Your task to perform on an android device: move an email to a new category in the gmail app Image 0: 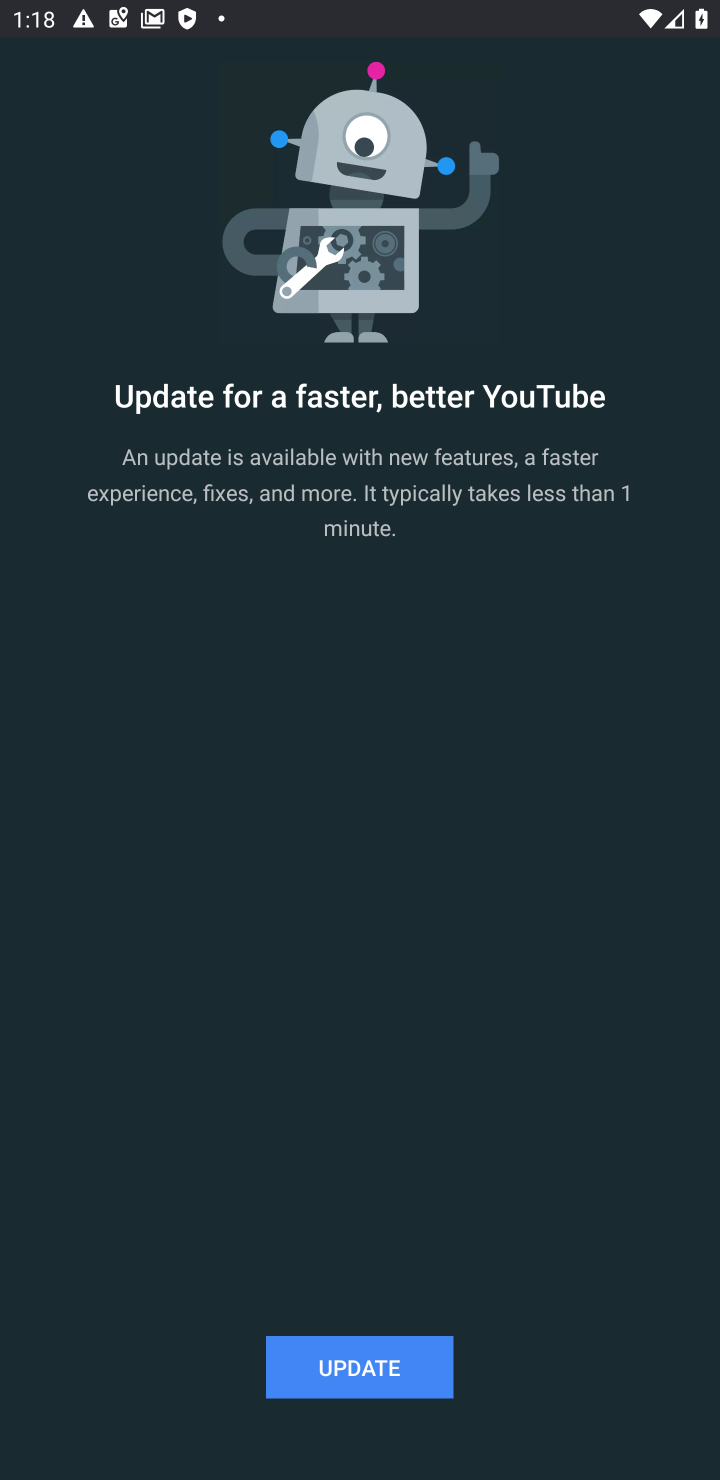
Step 0: press home button
Your task to perform on an android device: move an email to a new category in the gmail app Image 1: 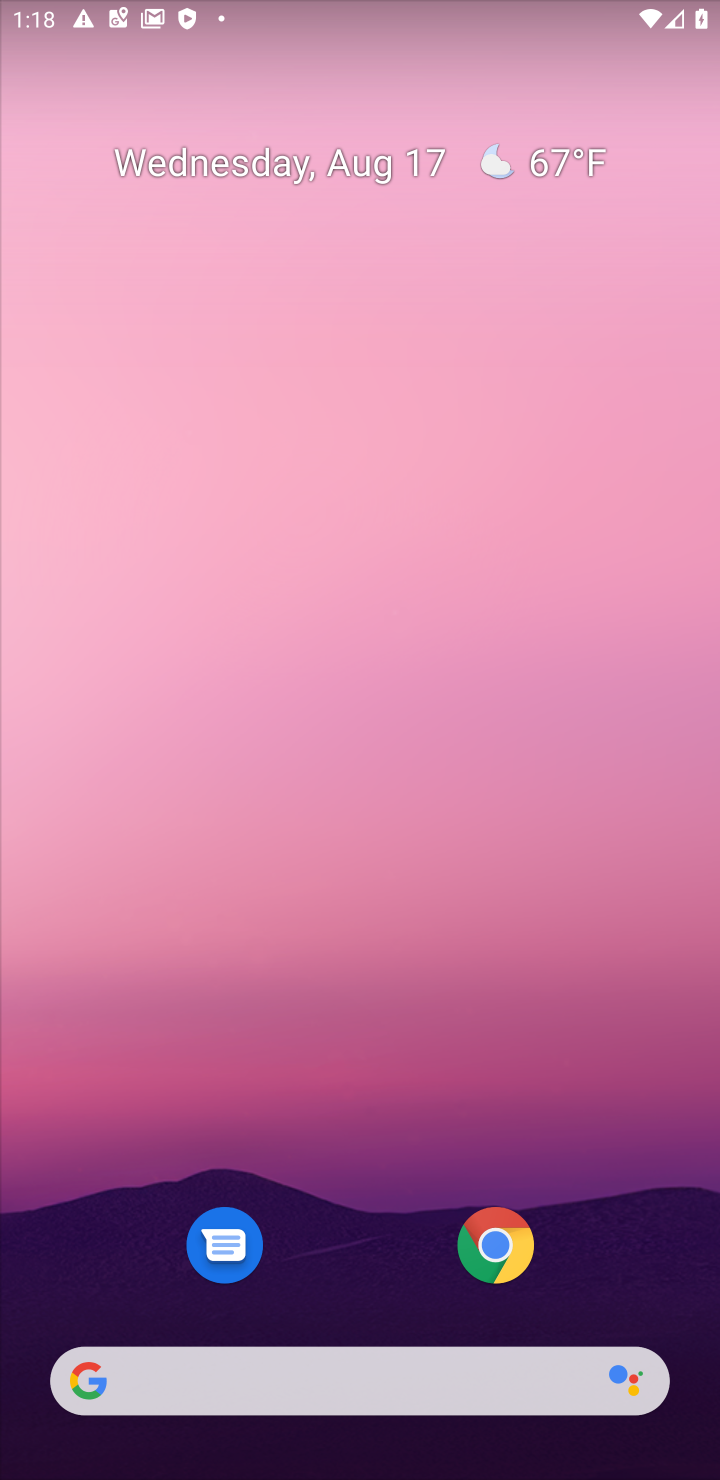
Step 1: drag from (365, 1164) to (365, 115)
Your task to perform on an android device: move an email to a new category in the gmail app Image 2: 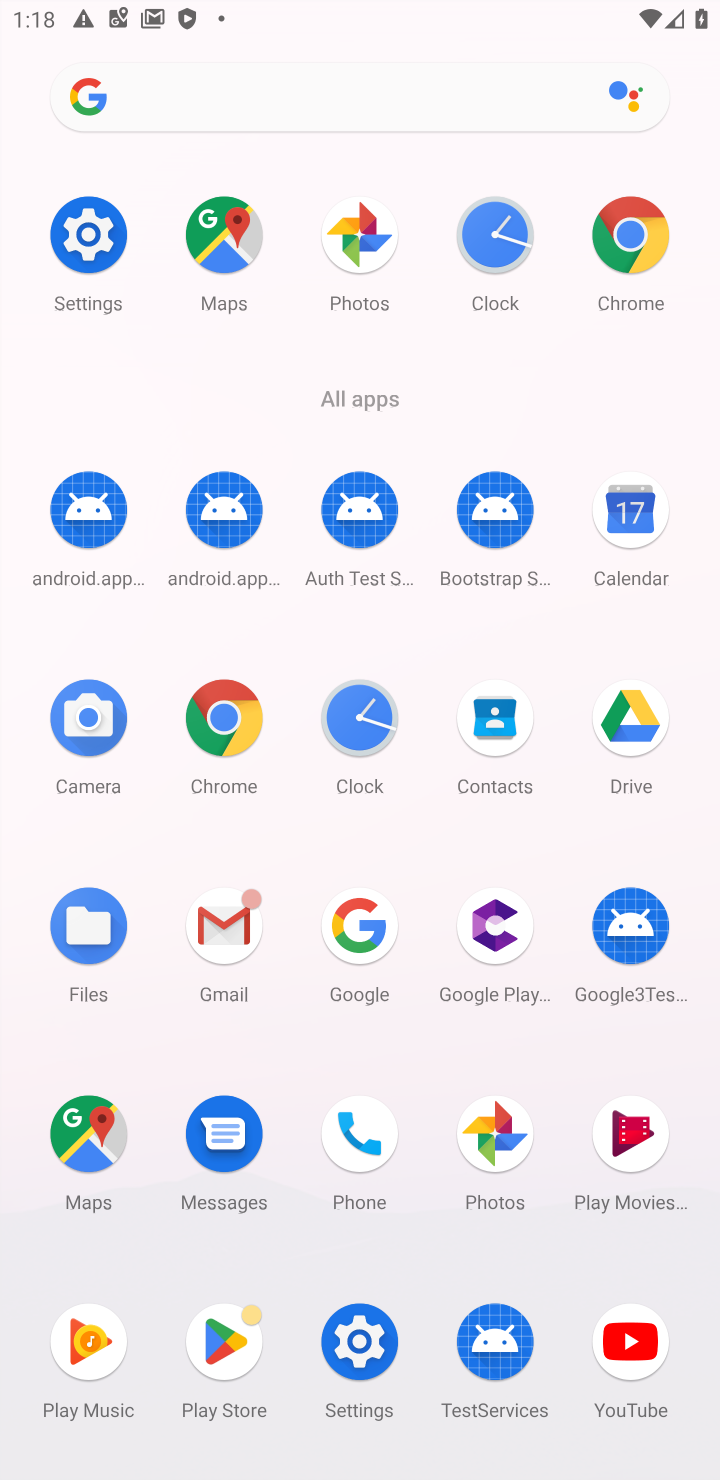
Step 2: click (233, 913)
Your task to perform on an android device: move an email to a new category in the gmail app Image 3: 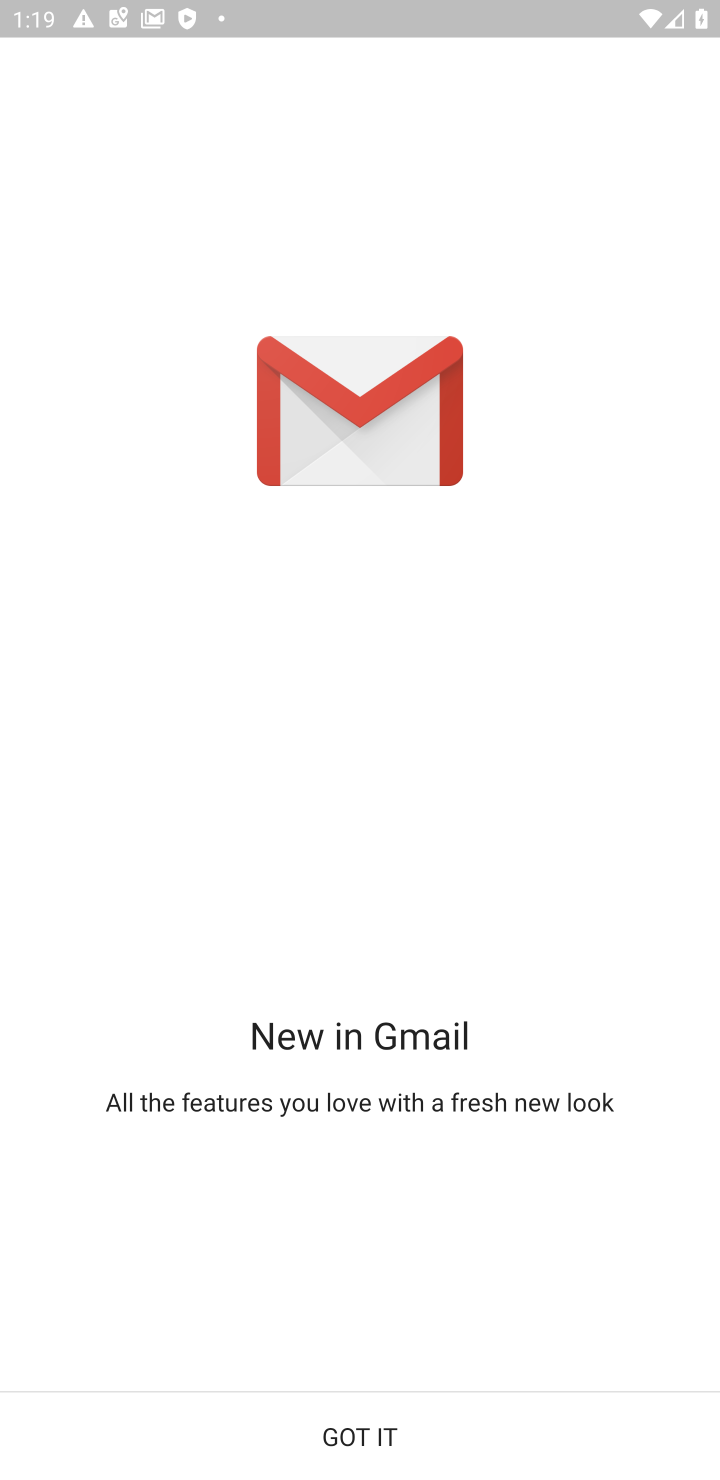
Step 3: click (348, 1418)
Your task to perform on an android device: move an email to a new category in the gmail app Image 4: 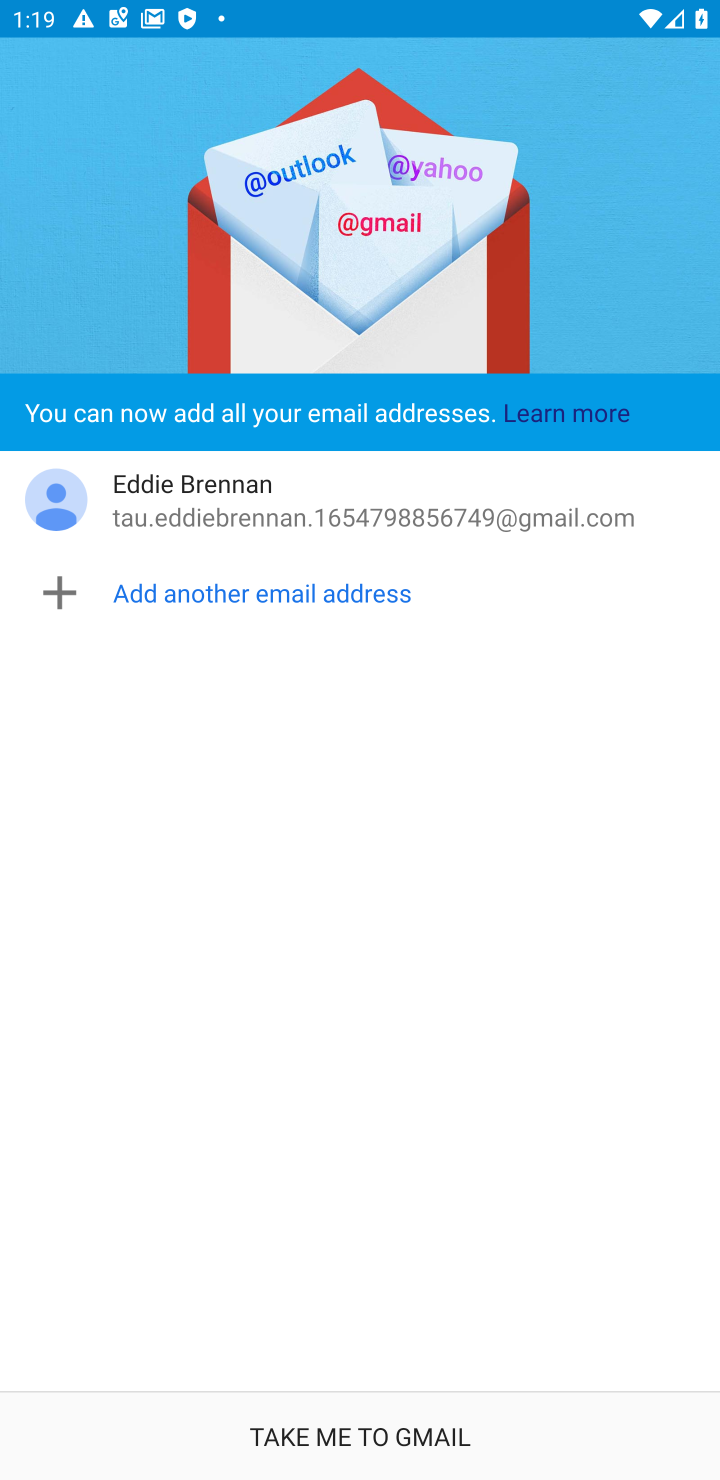
Step 4: click (393, 1426)
Your task to perform on an android device: move an email to a new category in the gmail app Image 5: 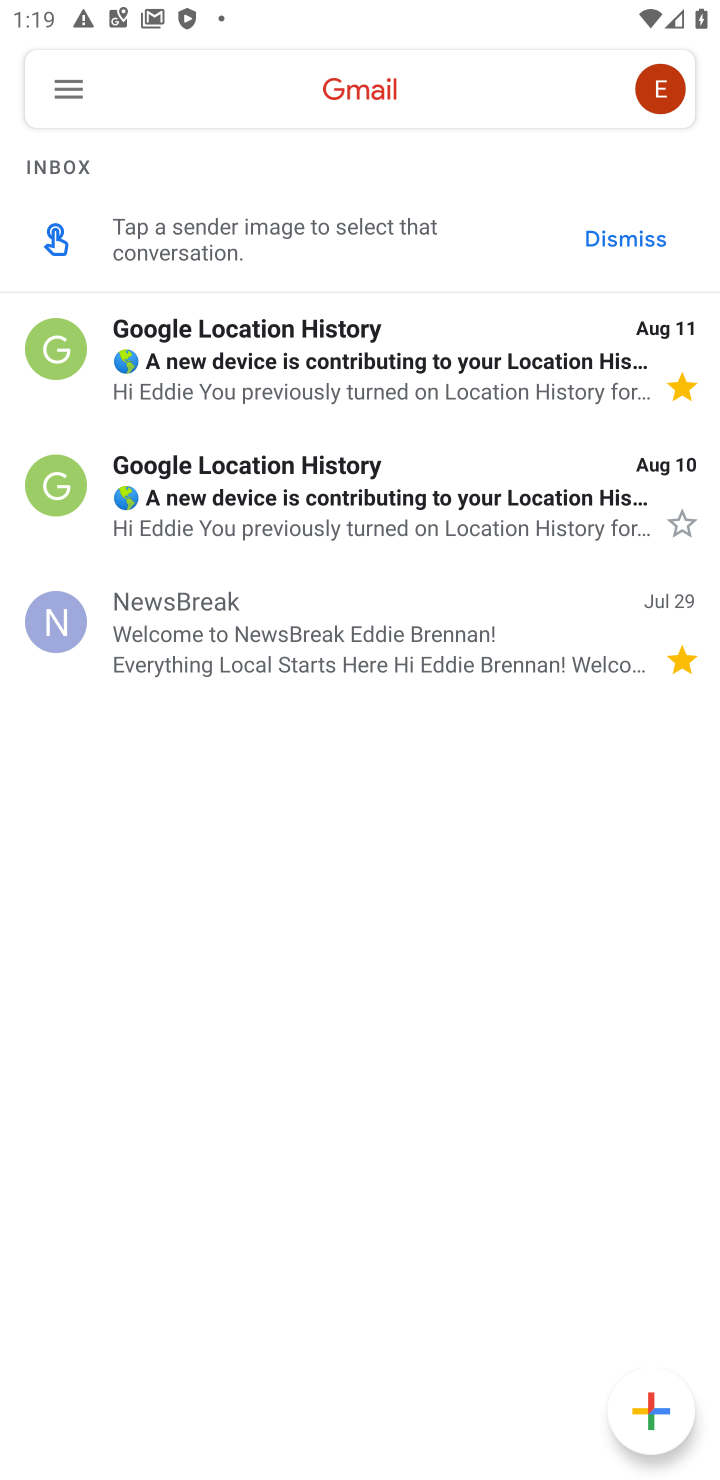
Step 5: click (336, 386)
Your task to perform on an android device: move an email to a new category in the gmail app Image 6: 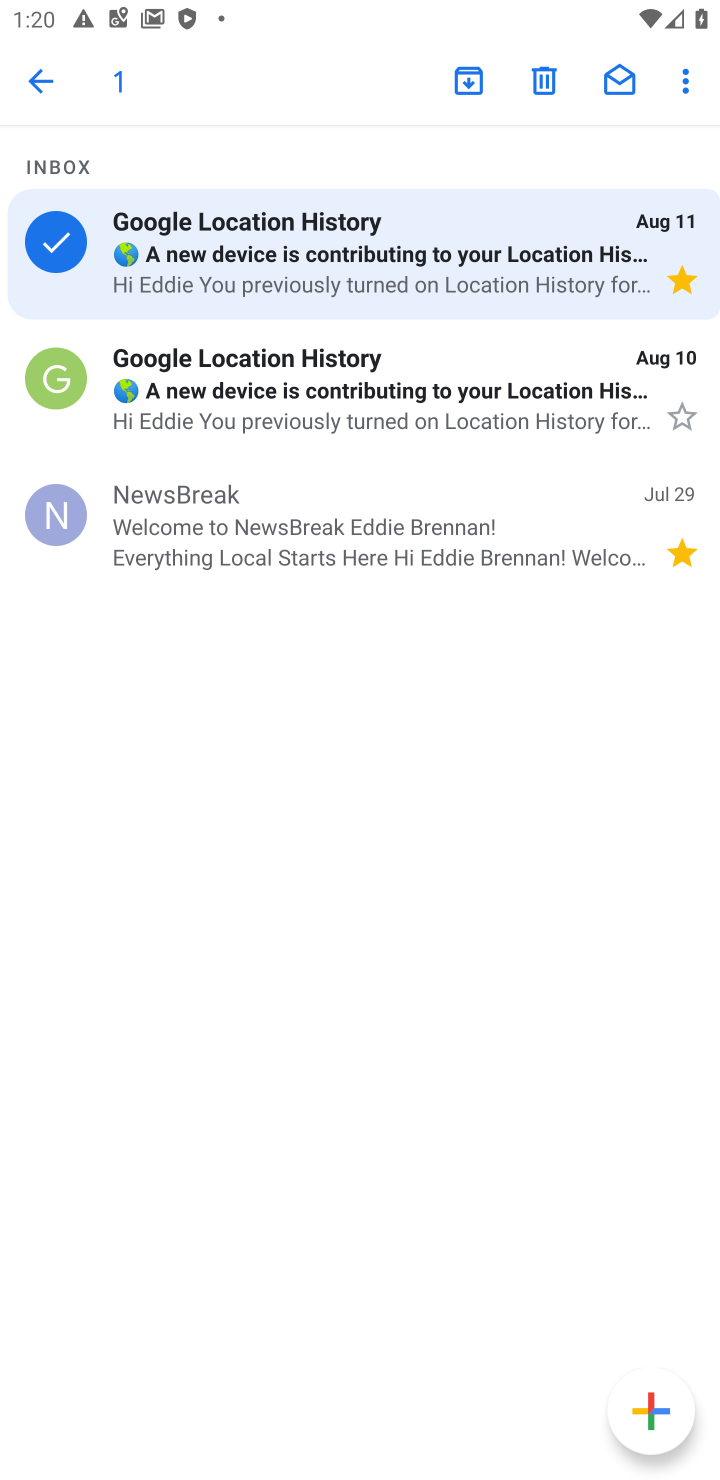
Step 6: click (682, 88)
Your task to perform on an android device: move an email to a new category in the gmail app Image 7: 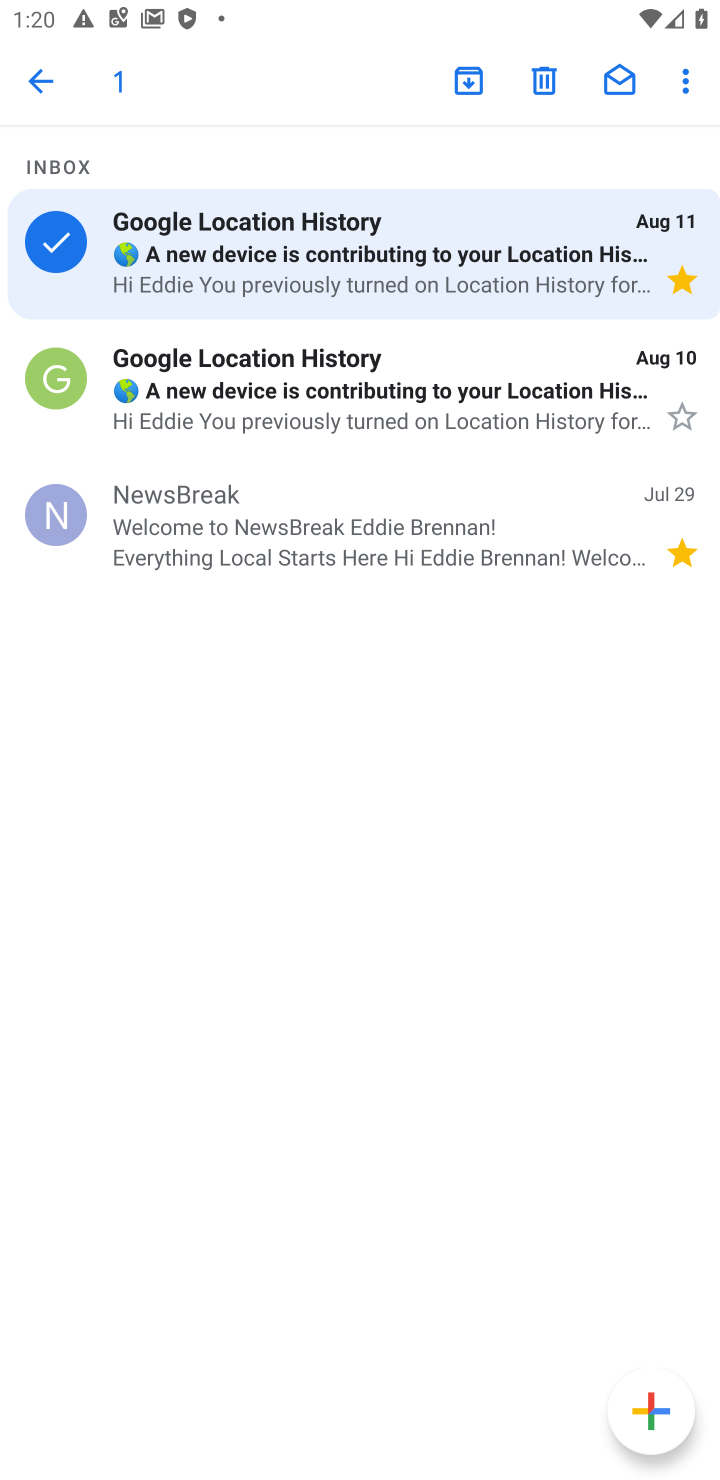
Step 7: click (684, 86)
Your task to perform on an android device: move an email to a new category in the gmail app Image 8: 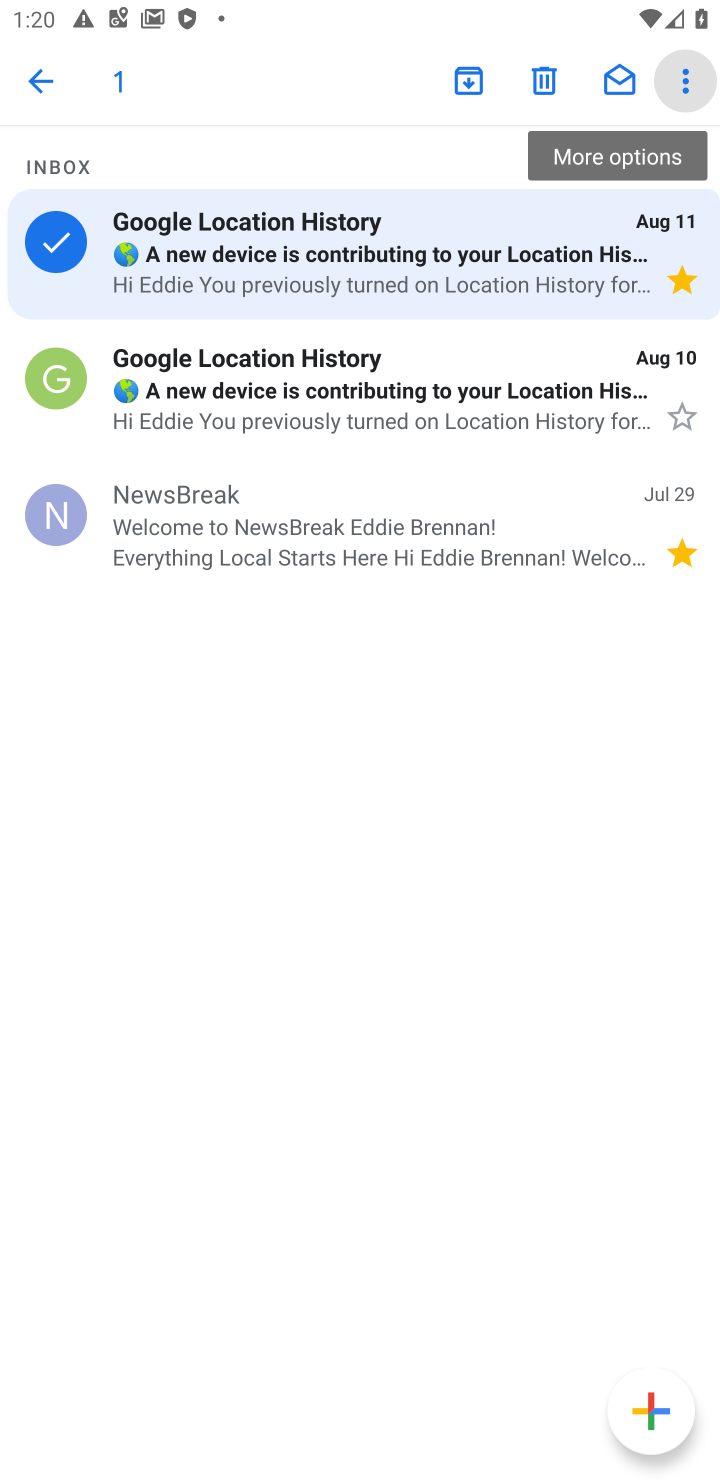
Step 8: click (684, 86)
Your task to perform on an android device: move an email to a new category in the gmail app Image 9: 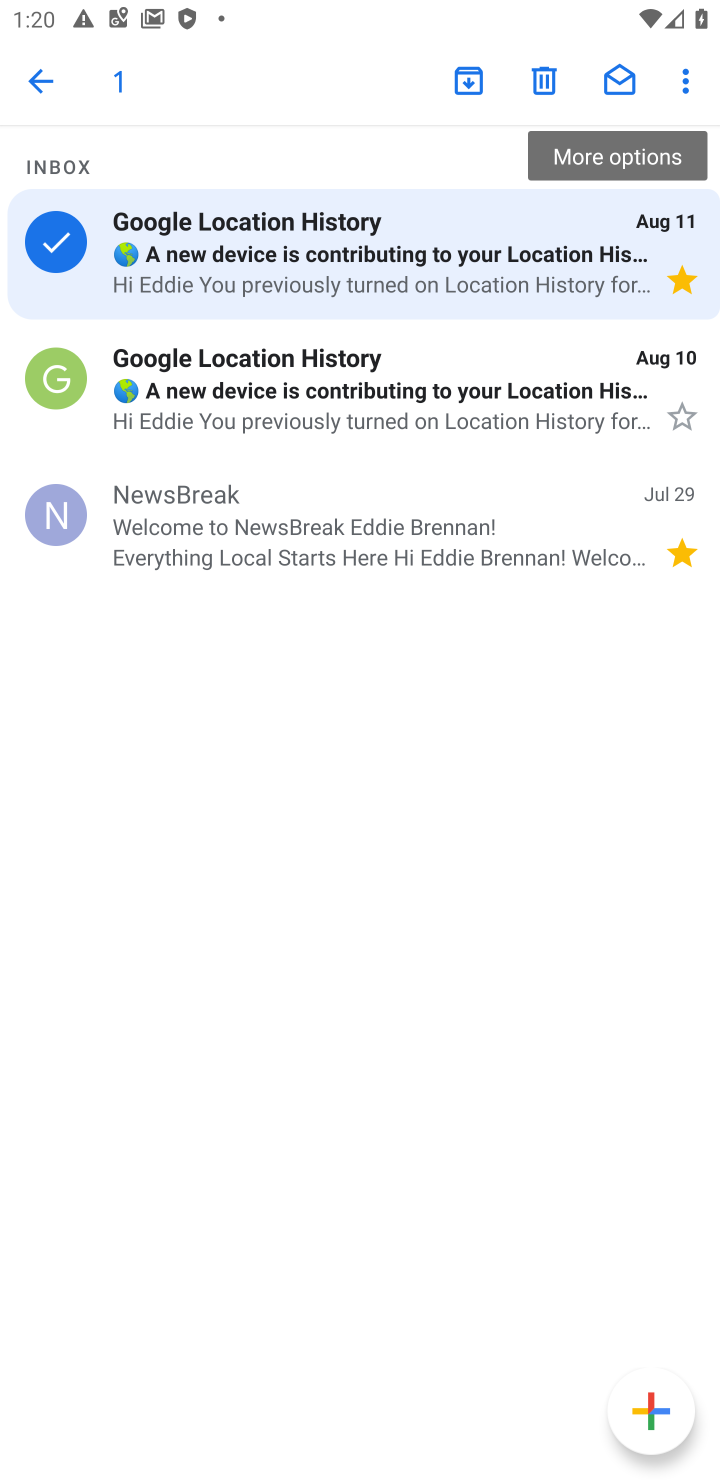
Step 9: click (684, 79)
Your task to perform on an android device: move an email to a new category in the gmail app Image 10: 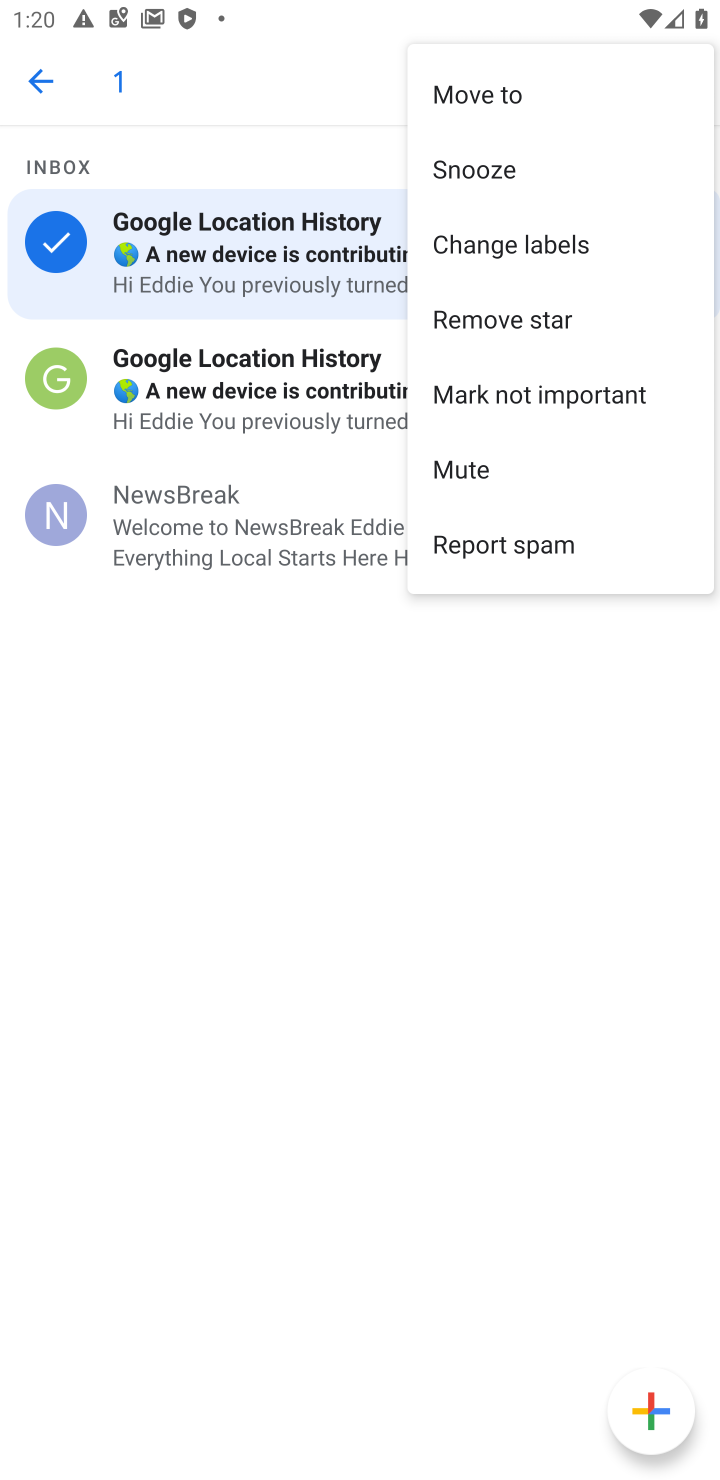
Step 10: click (683, 79)
Your task to perform on an android device: move an email to a new category in the gmail app Image 11: 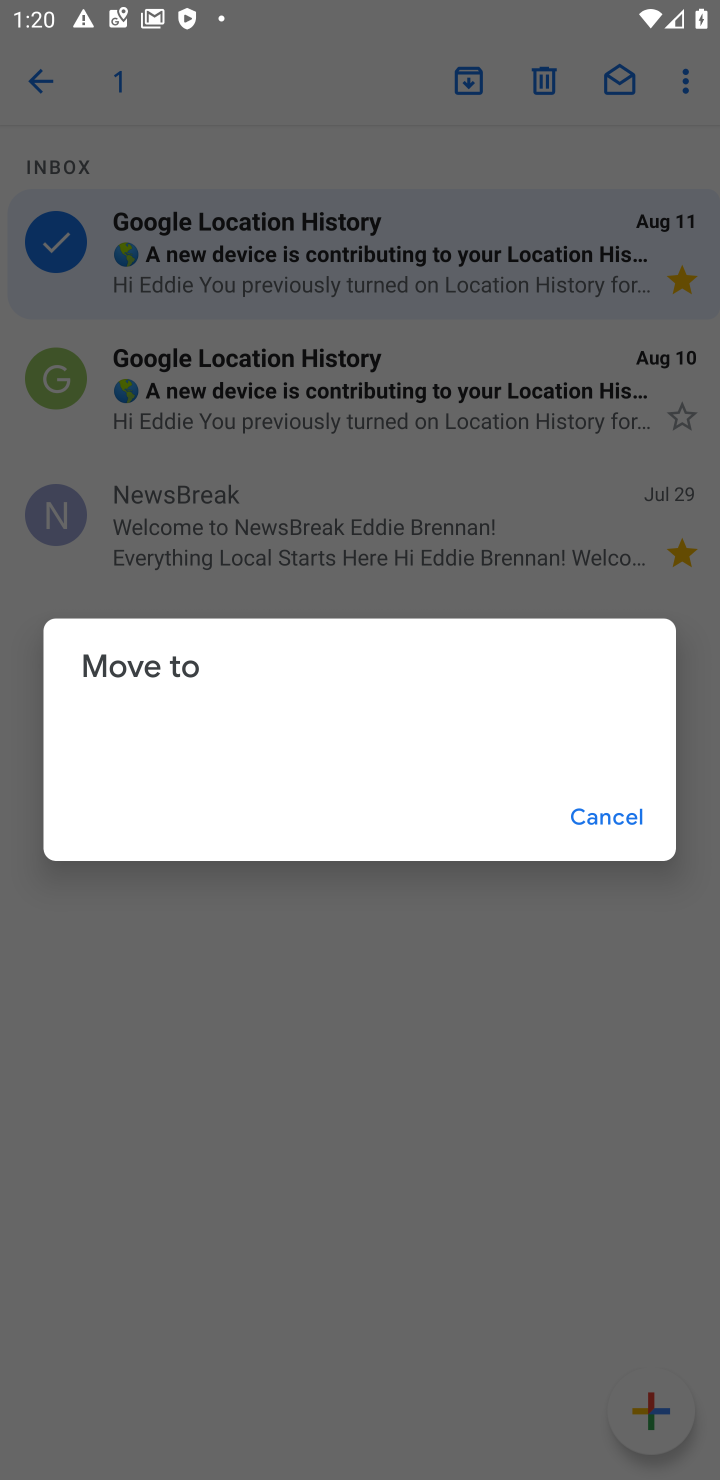
Step 11: click (624, 817)
Your task to perform on an android device: move an email to a new category in the gmail app Image 12: 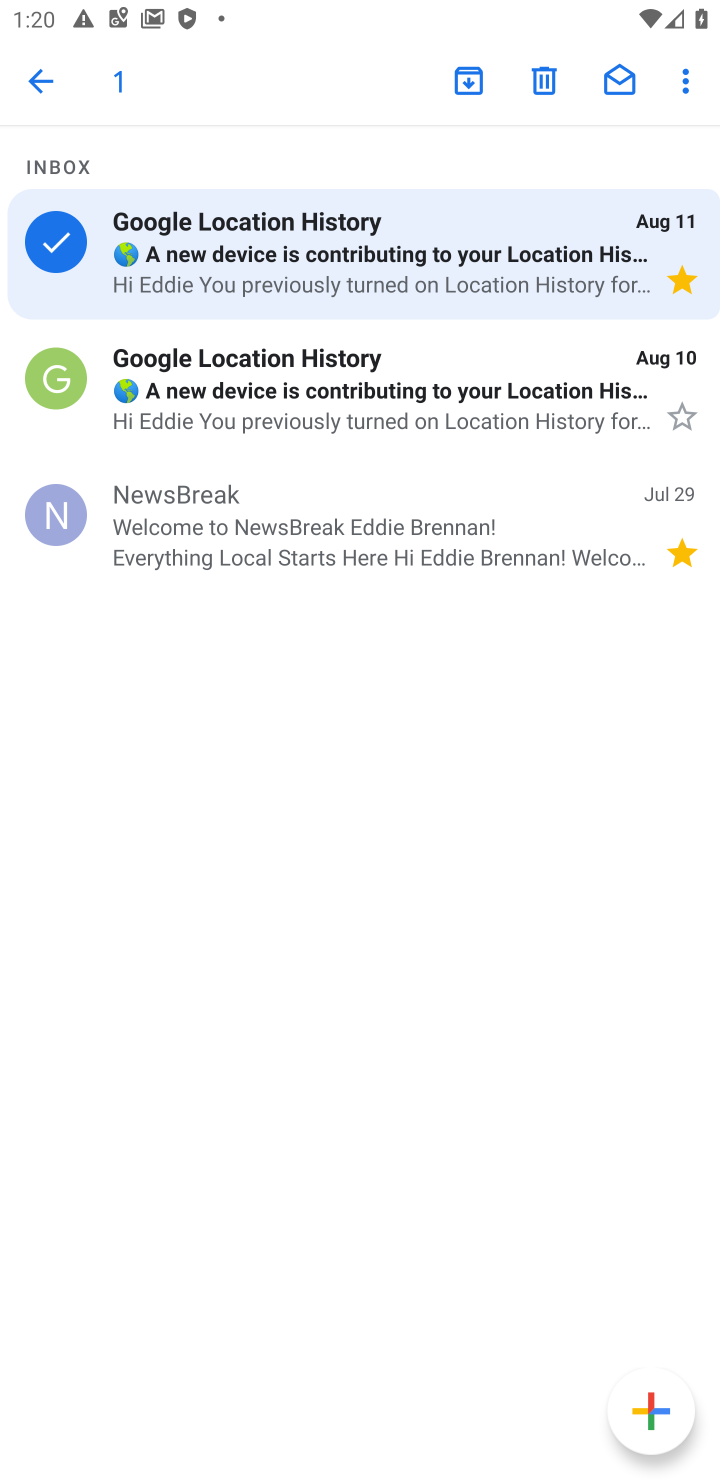
Step 12: task complete